Your task to perform on an android device: read, delete, or share a saved page in the chrome app Image 0: 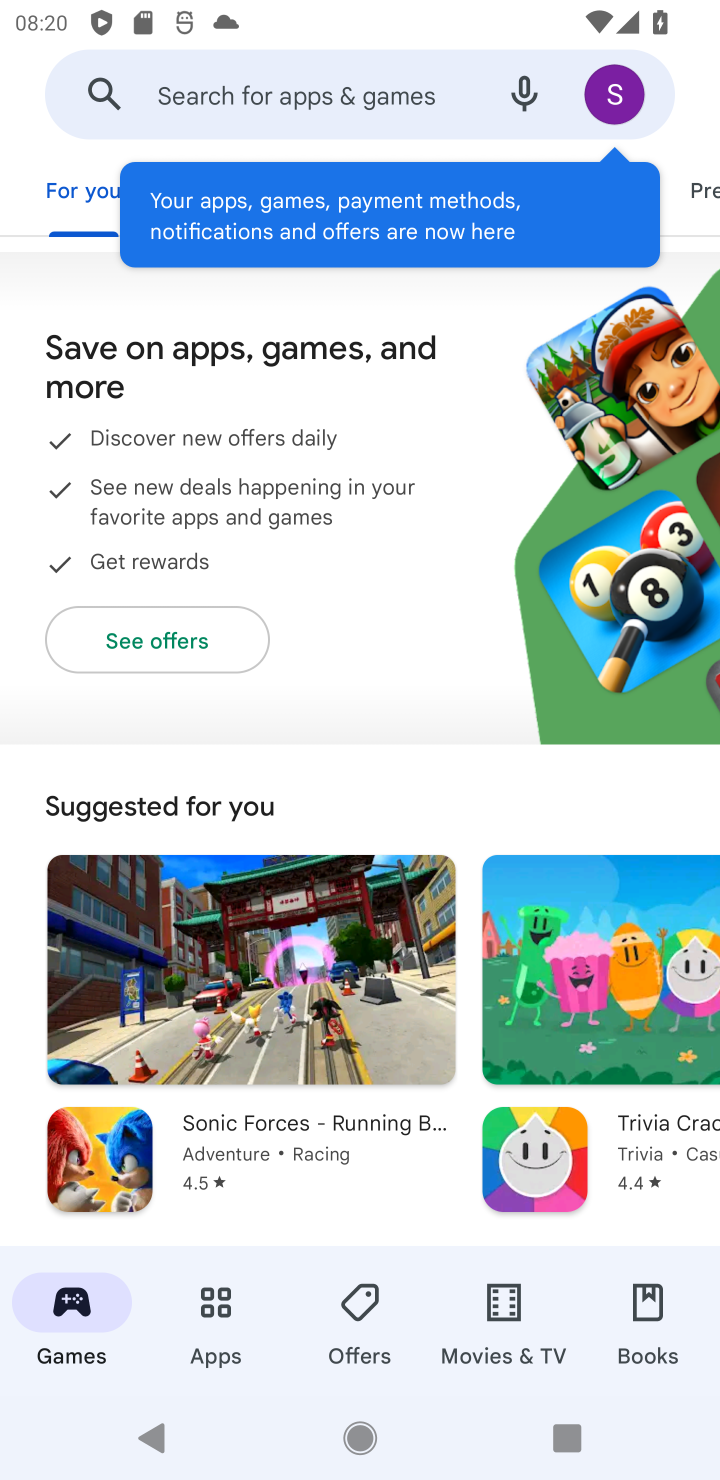
Step 0: press home button
Your task to perform on an android device: read, delete, or share a saved page in the chrome app Image 1: 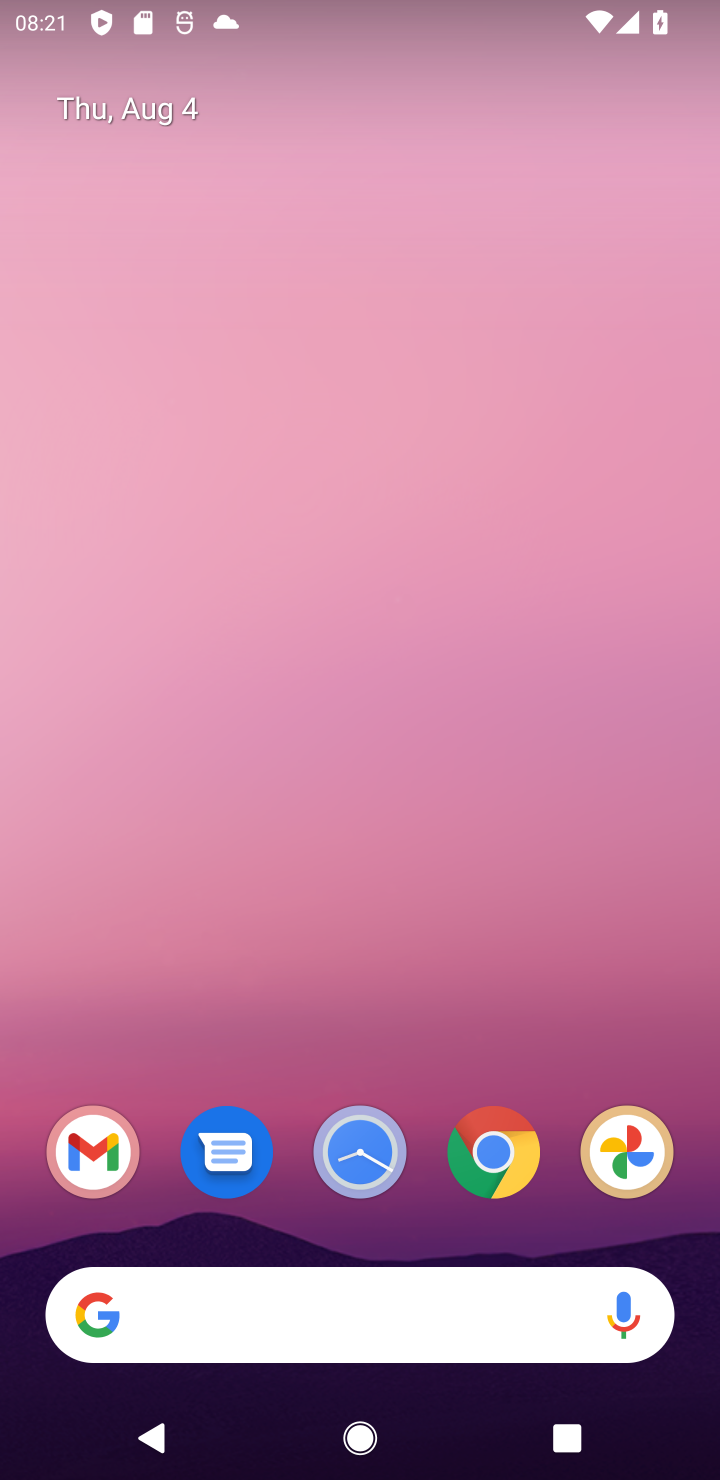
Step 1: click (499, 1171)
Your task to perform on an android device: read, delete, or share a saved page in the chrome app Image 2: 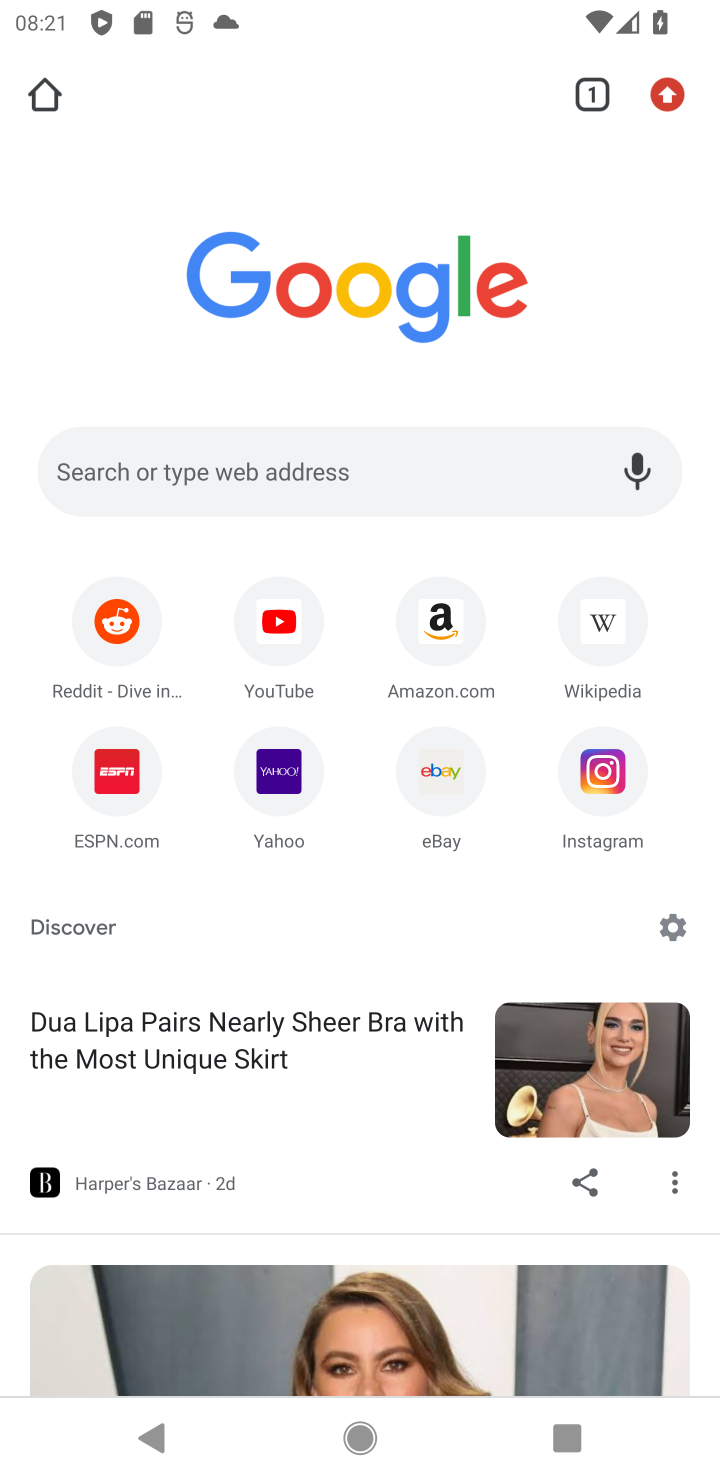
Step 2: click (115, 631)
Your task to perform on an android device: read, delete, or share a saved page in the chrome app Image 3: 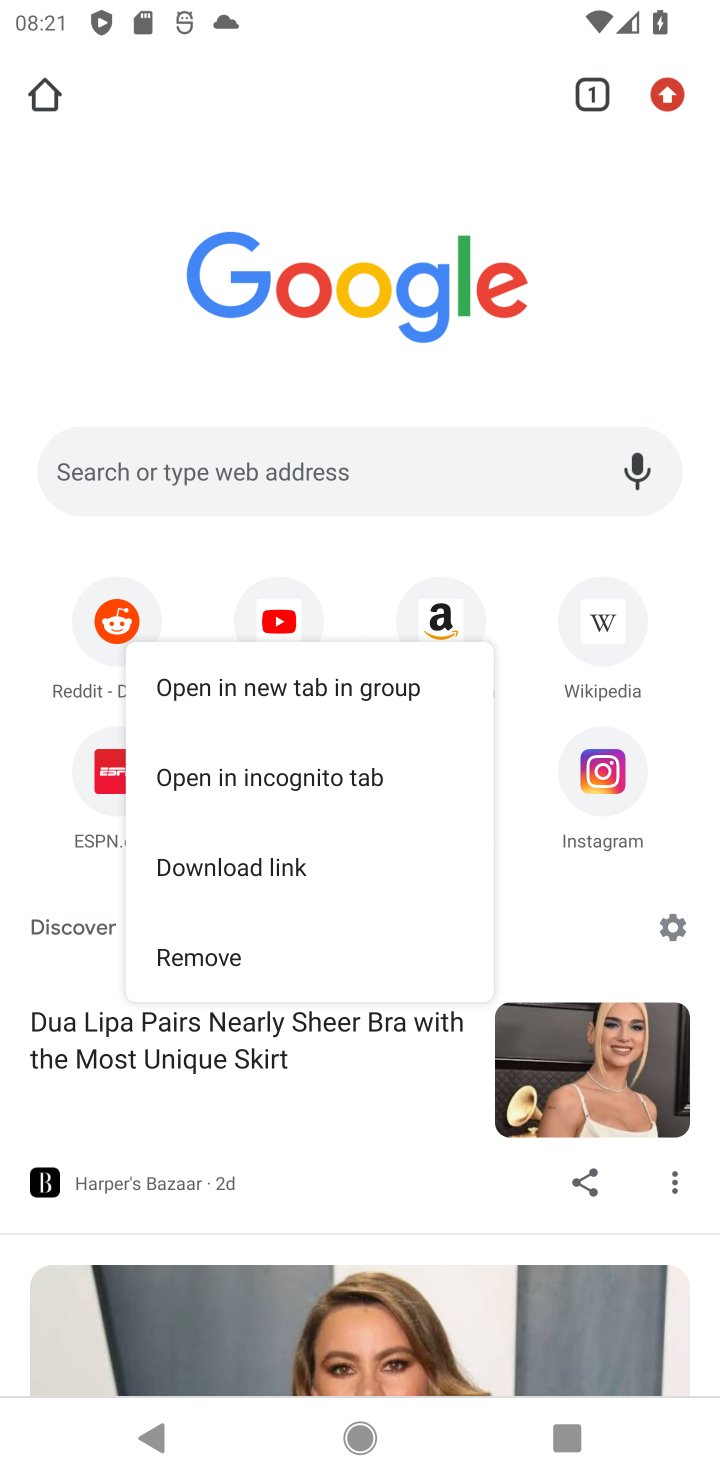
Step 3: click (324, 969)
Your task to perform on an android device: read, delete, or share a saved page in the chrome app Image 4: 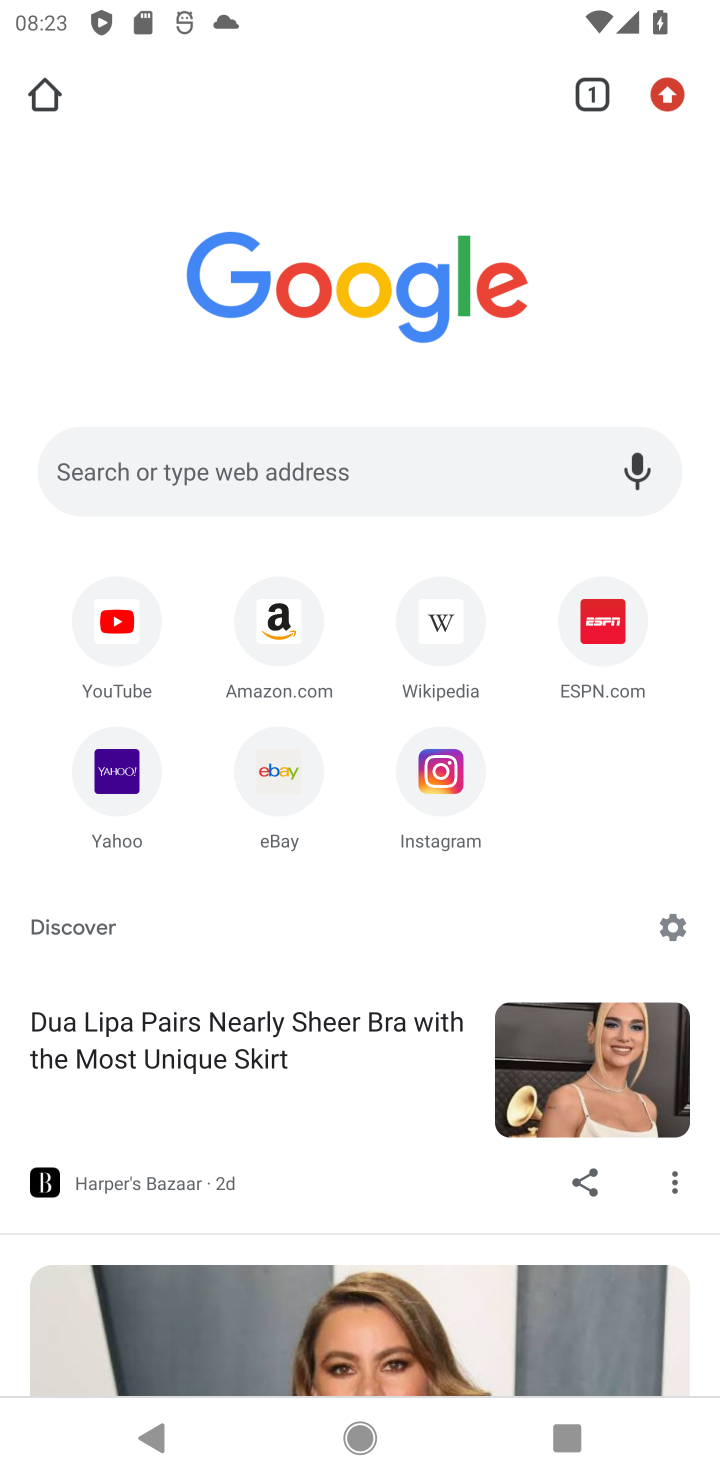
Step 4: task complete